Your task to perform on an android device: Open Google Image 0: 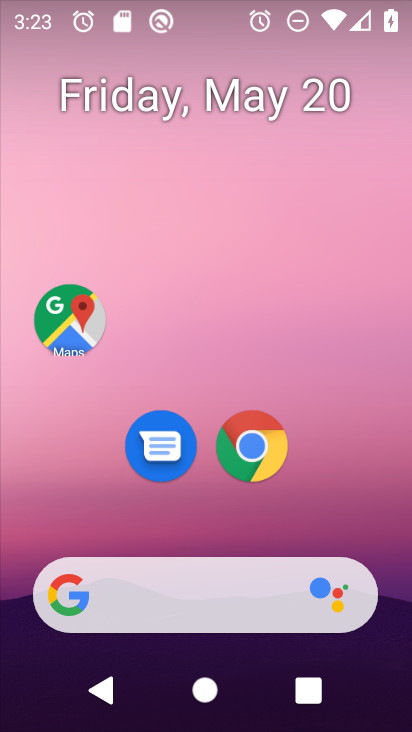
Step 0: drag from (349, 528) to (403, 17)
Your task to perform on an android device: Open Google Image 1: 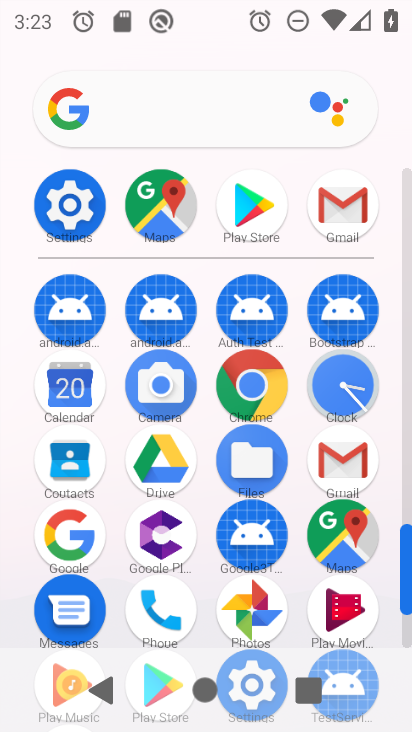
Step 1: click (69, 536)
Your task to perform on an android device: Open Google Image 2: 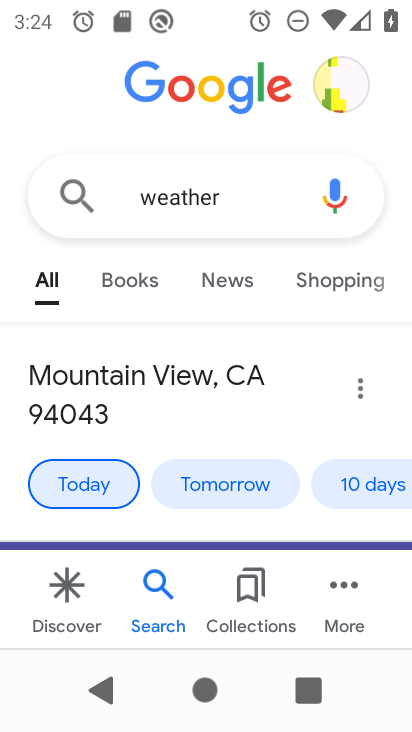
Step 2: task complete